Your task to perform on an android device: change the clock display to digital Image 0: 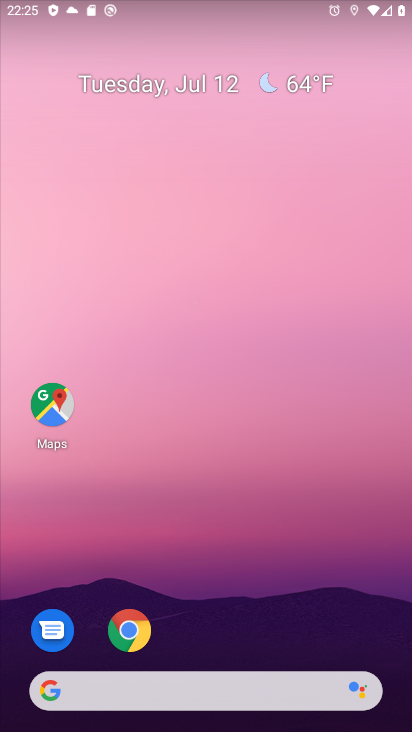
Step 0: drag from (190, 632) to (318, 13)
Your task to perform on an android device: change the clock display to digital Image 1: 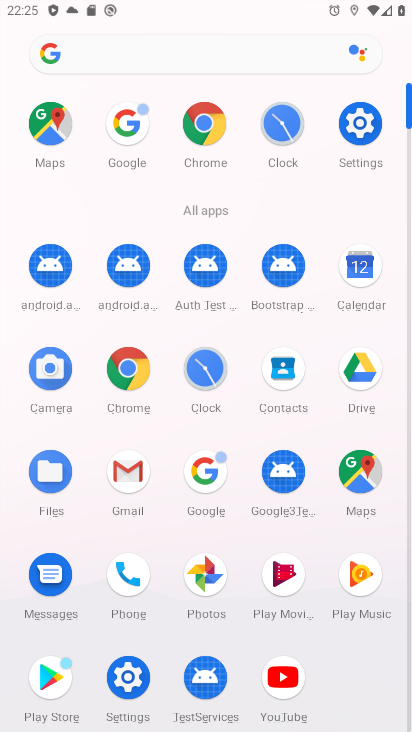
Step 1: click (205, 364)
Your task to perform on an android device: change the clock display to digital Image 2: 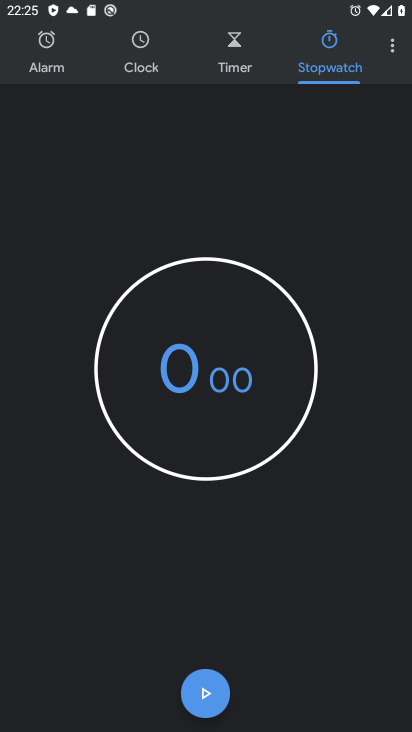
Step 2: click (390, 50)
Your task to perform on an android device: change the clock display to digital Image 3: 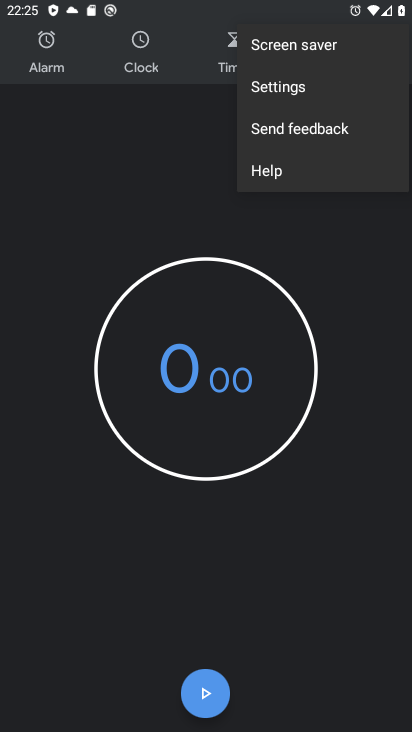
Step 3: click (274, 89)
Your task to perform on an android device: change the clock display to digital Image 4: 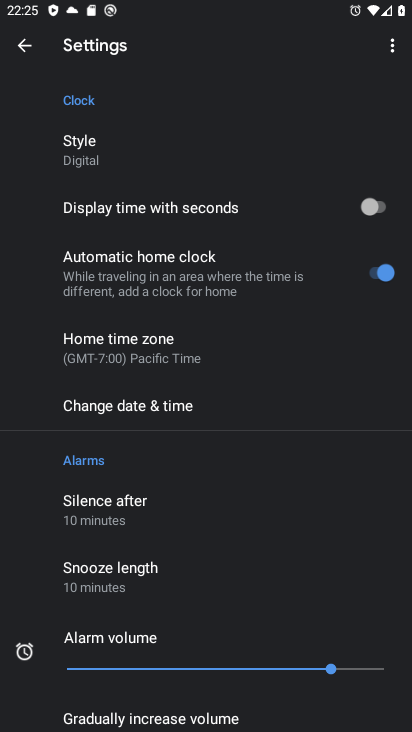
Step 4: drag from (227, 521) to (191, 113)
Your task to perform on an android device: change the clock display to digital Image 5: 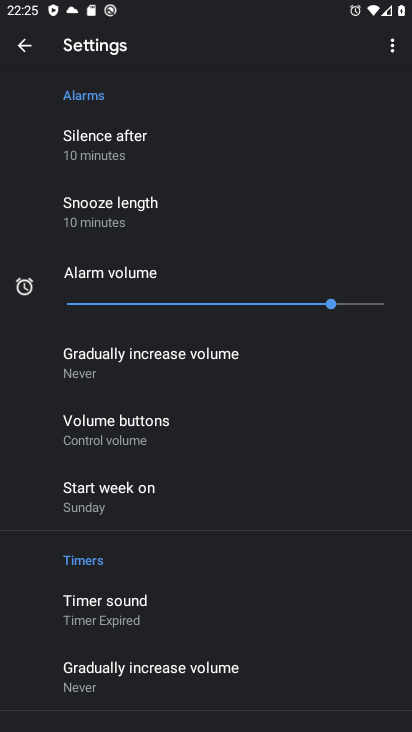
Step 5: drag from (212, 569) to (231, 722)
Your task to perform on an android device: change the clock display to digital Image 6: 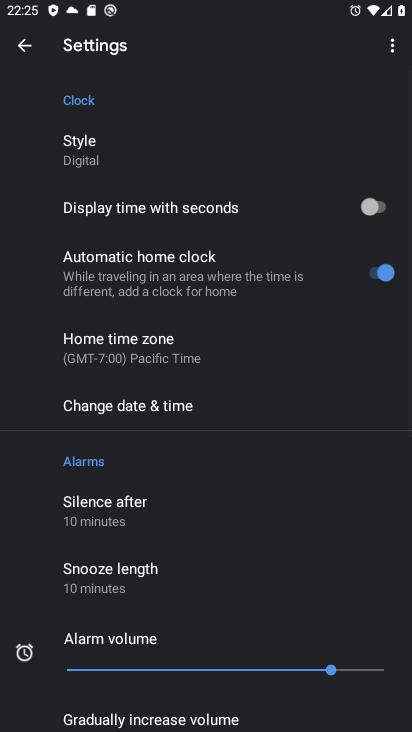
Step 6: click (100, 158)
Your task to perform on an android device: change the clock display to digital Image 7: 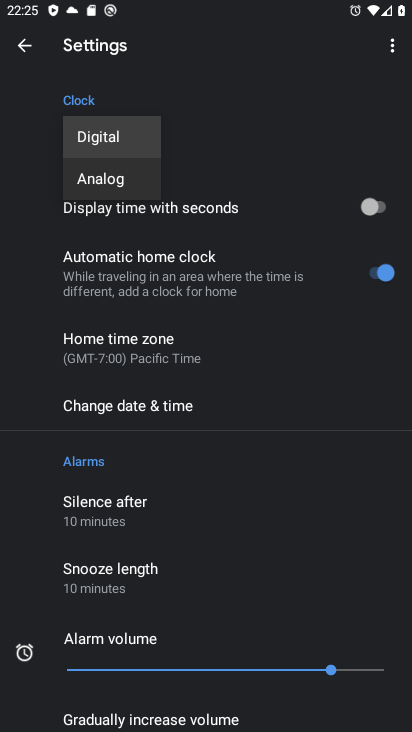
Step 7: click (91, 143)
Your task to perform on an android device: change the clock display to digital Image 8: 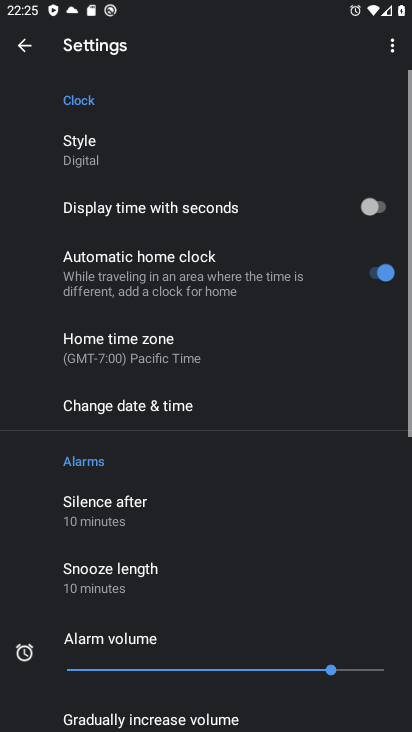
Step 8: task complete